Your task to perform on an android device: What's the weather going to be tomorrow? Image 0: 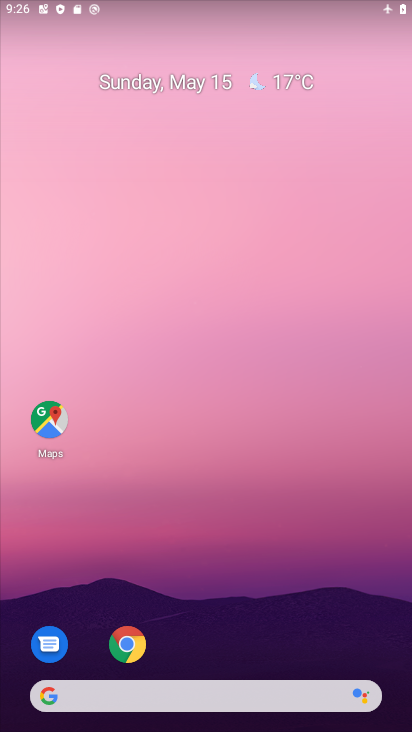
Step 0: drag from (248, 724) to (159, 180)
Your task to perform on an android device: What's the weather going to be tomorrow? Image 1: 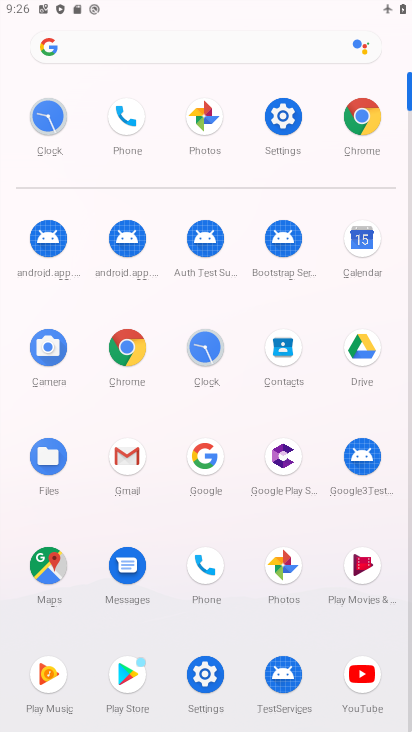
Step 1: click (136, 47)
Your task to perform on an android device: What's the weather going to be tomorrow? Image 2: 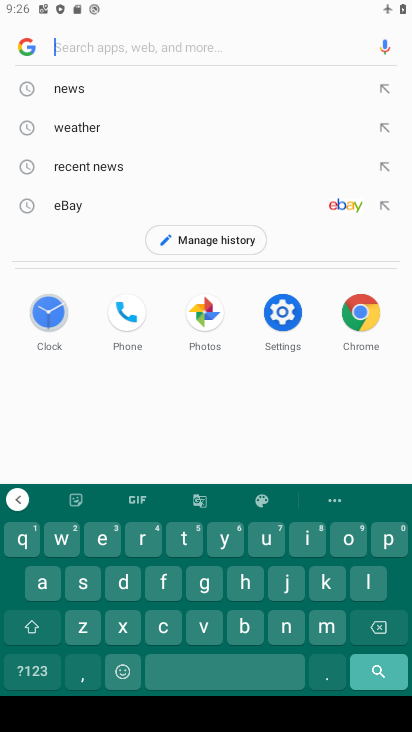
Step 2: click (97, 128)
Your task to perform on an android device: What's the weather going to be tomorrow? Image 3: 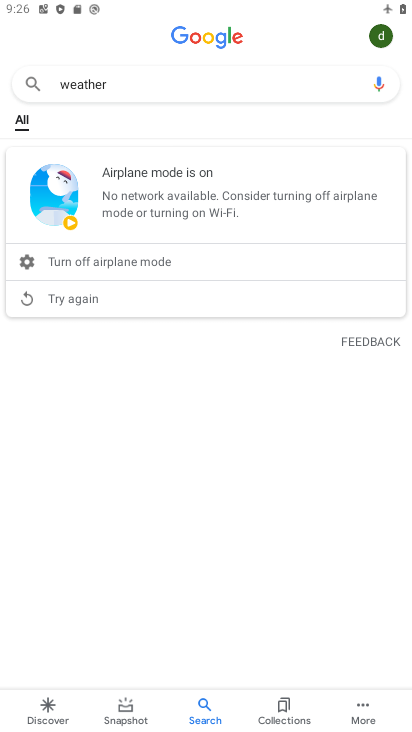
Step 3: press home button
Your task to perform on an android device: What's the weather going to be tomorrow? Image 4: 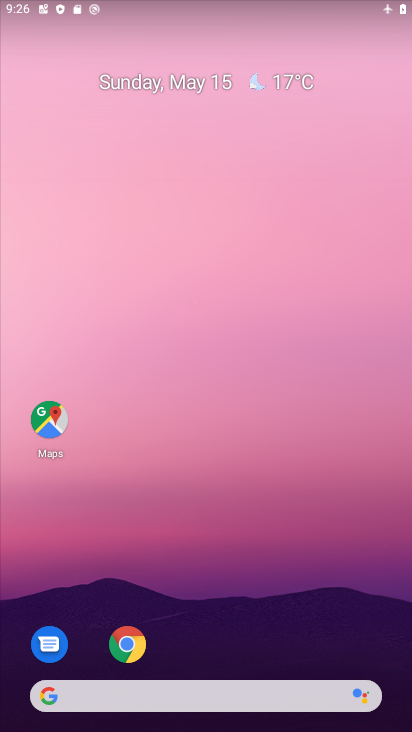
Step 4: drag from (305, 713) to (267, 106)
Your task to perform on an android device: What's the weather going to be tomorrow? Image 5: 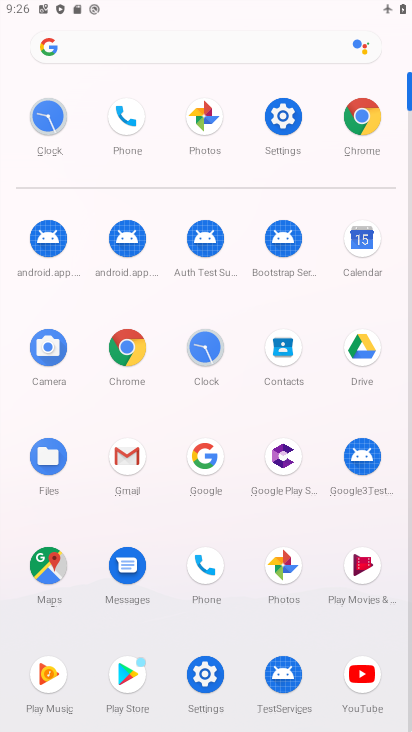
Step 5: click (277, 111)
Your task to perform on an android device: What's the weather going to be tomorrow? Image 6: 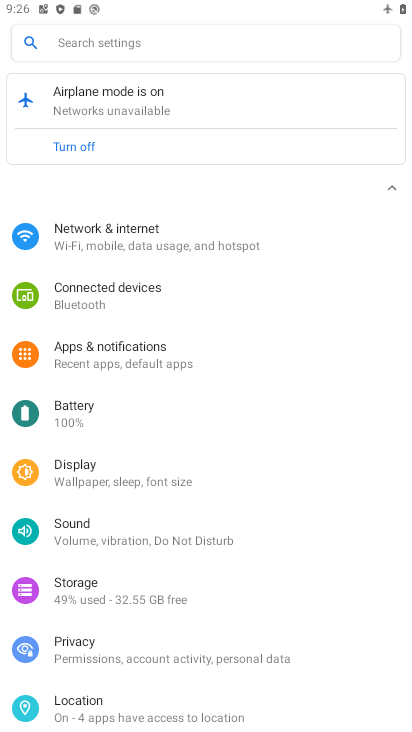
Step 6: click (64, 143)
Your task to perform on an android device: What's the weather going to be tomorrow? Image 7: 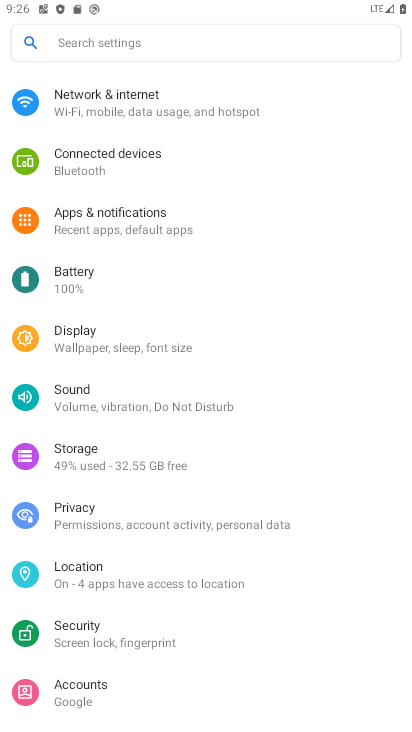
Step 7: press home button
Your task to perform on an android device: What's the weather going to be tomorrow? Image 8: 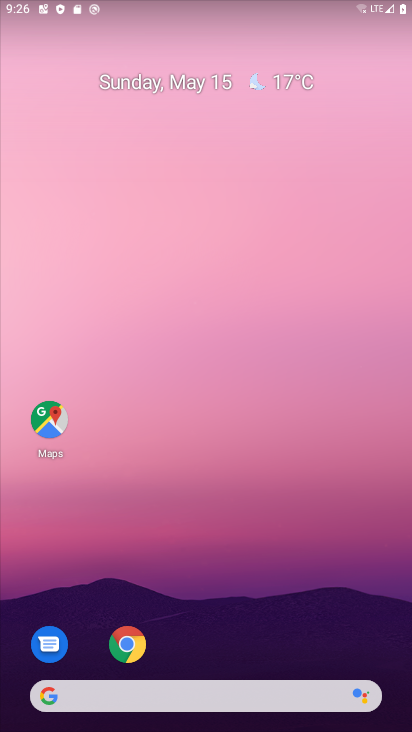
Step 8: click (179, 693)
Your task to perform on an android device: What's the weather going to be tomorrow? Image 9: 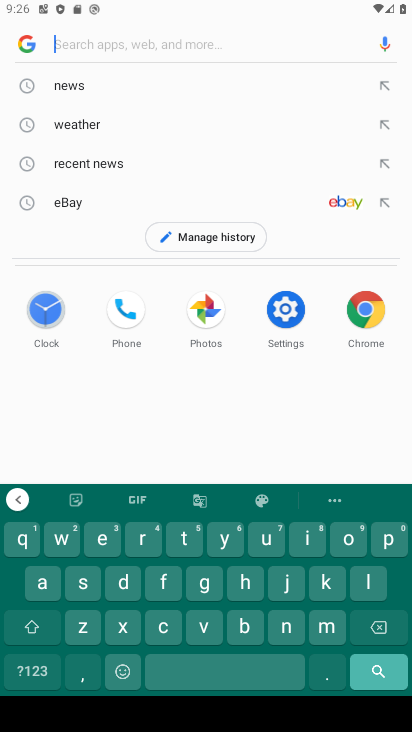
Step 9: click (155, 127)
Your task to perform on an android device: What's the weather going to be tomorrow? Image 10: 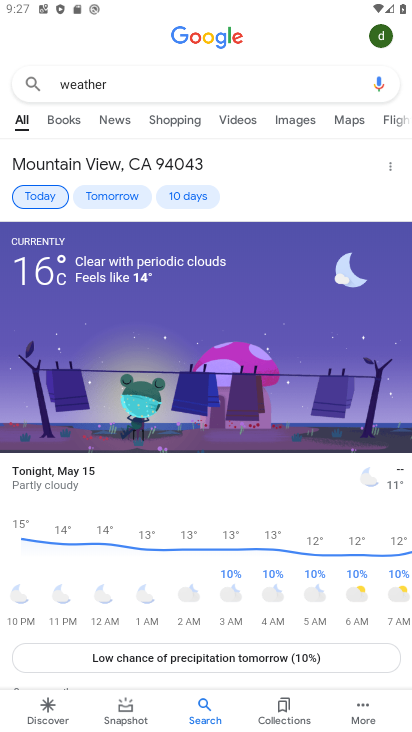
Step 10: task complete